Your task to perform on an android device: Open privacy settings Image 0: 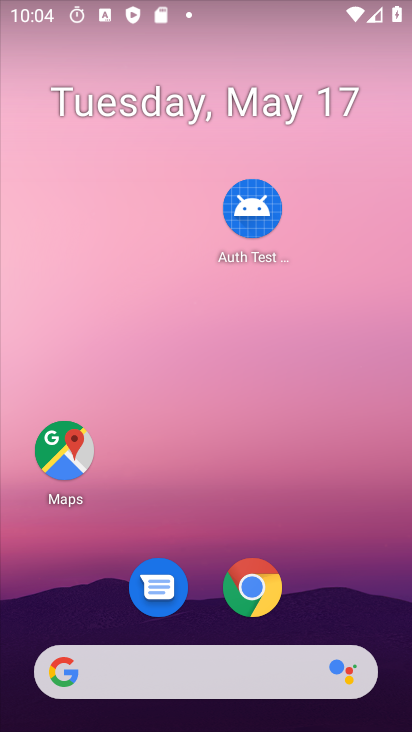
Step 0: drag from (220, 529) to (38, 162)
Your task to perform on an android device: Open privacy settings Image 1: 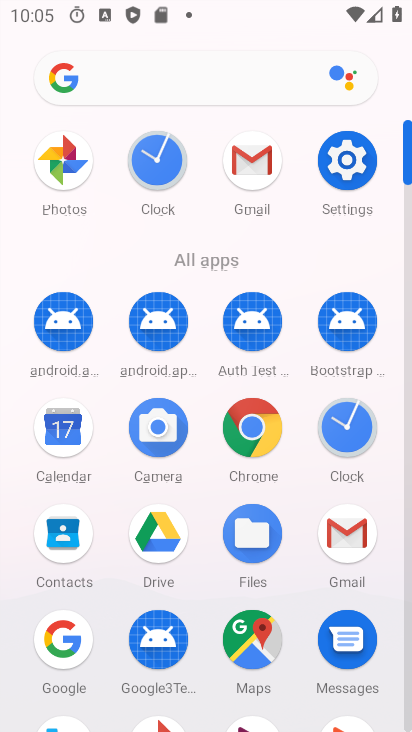
Step 1: click (363, 166)
Your task to perform on an android device: Open privacy settings Image 2: 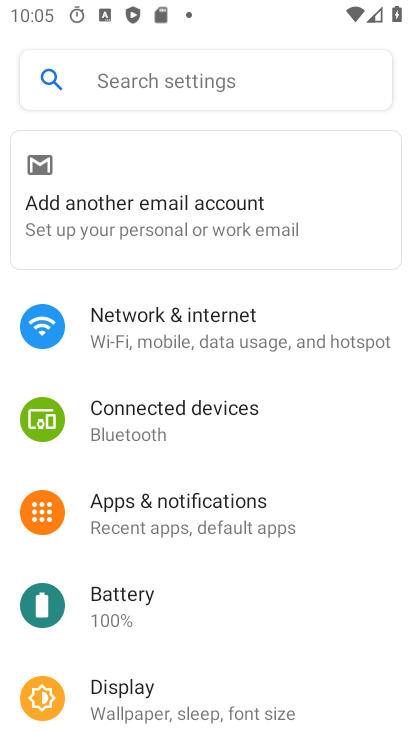
Step 2: drag from (188, 453) to (187, 189)
Your task to perform on an android device: Open privacy settings Image 3: 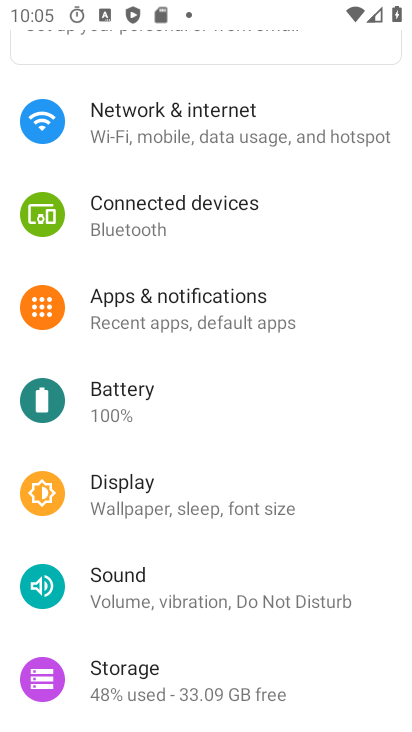
Step 3: drag from (169, 488) to (135, 136)
Your task to perform on an android device: Open privacy settings Image 4: 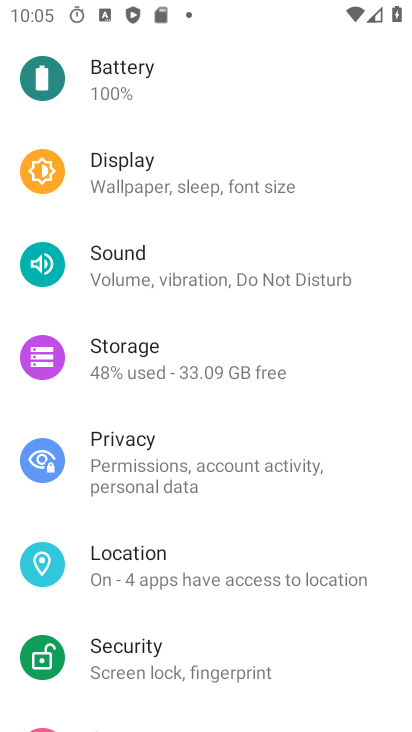
Step 4: click (182, 460)
Your task to perform on an android device: Open privacy settings Image 5: 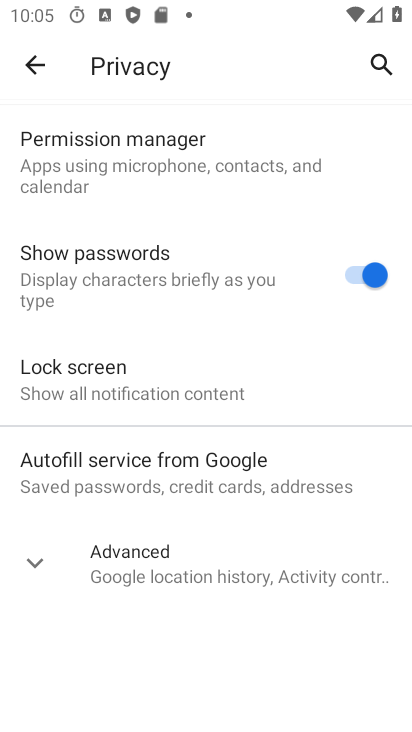
Step 5: task complete